Your task to perform on an android device: Go to privacy settings Image 0: 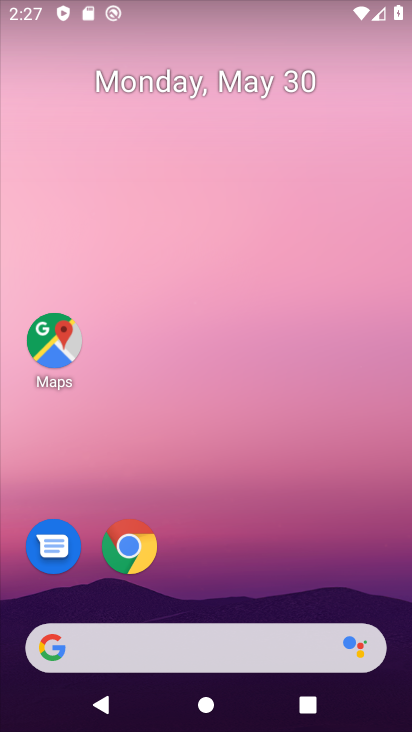
Step 0: drag from (337, 521) to (203, 197)
Your task to perform on an android device: Go to privacy settings Image 1: 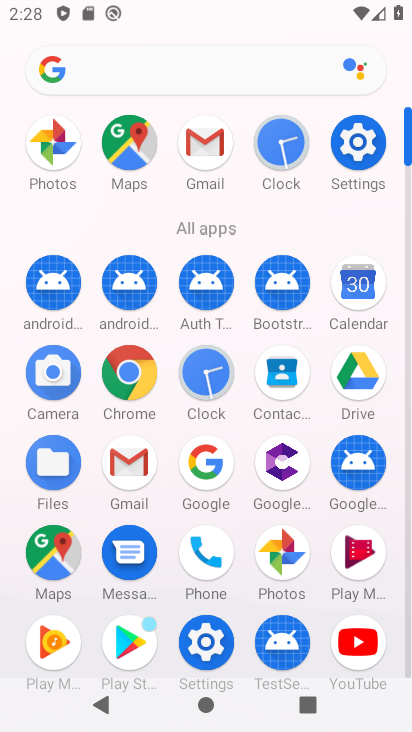
Step 1: click (356, 148)
Your task to perform on an android device: Go to privacy settings Image 2: 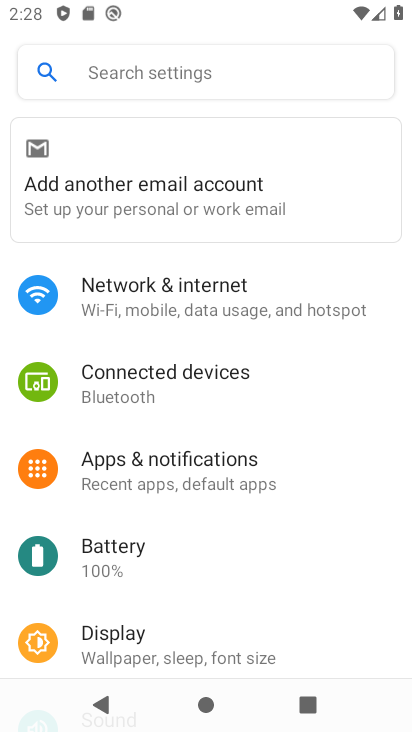
Step 2: drag from (256, 589) to (279, 133)
Your task to perform on an android device: Go to privacy settings Image 3: 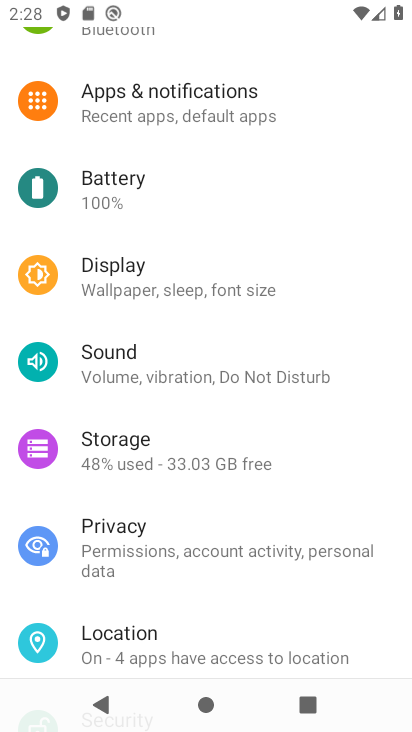
Step 3: click (185, 550)
Your task to perform on an android device: Go to privacy settings Image 4: 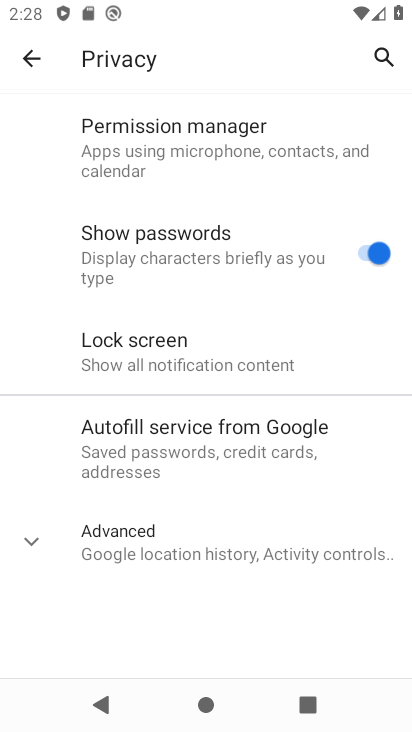
Step 4: task complete